Your task to perform on an android device: What's on my calendar today? Image 0: 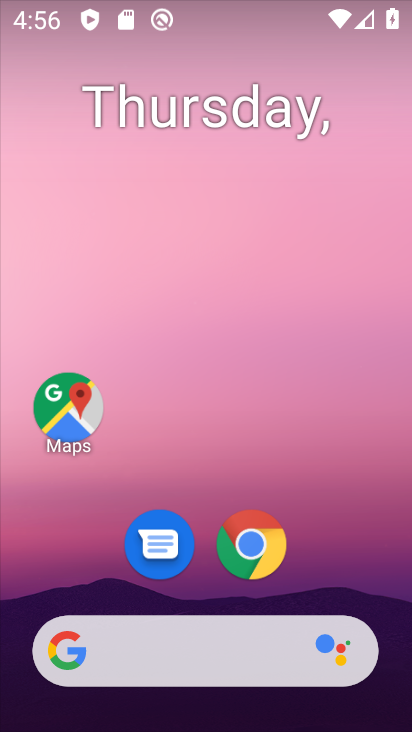
Step 0: drag from (309, 466) to (289, 3)
Your task to perform on an android device: What's on my calendar today? Image 1: 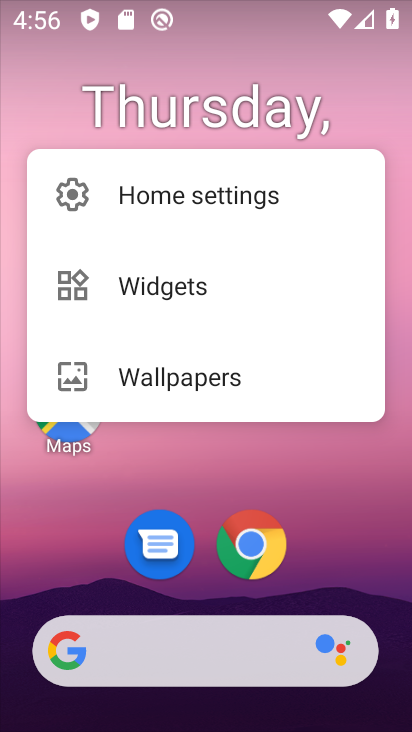
Step 1: click (317, 531)
Your task to perform on an android device: What's on my calendar today? Image 2: 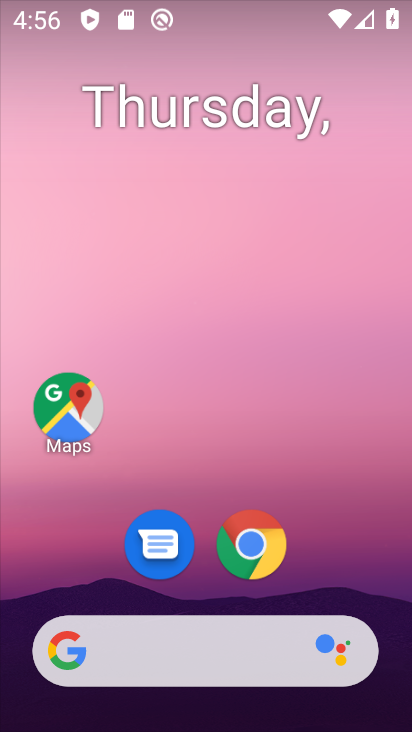
Step 2: drag from (339, 545) to (296, 64)
Your task to perform on an android device: What's on my calendar today? Image 3: 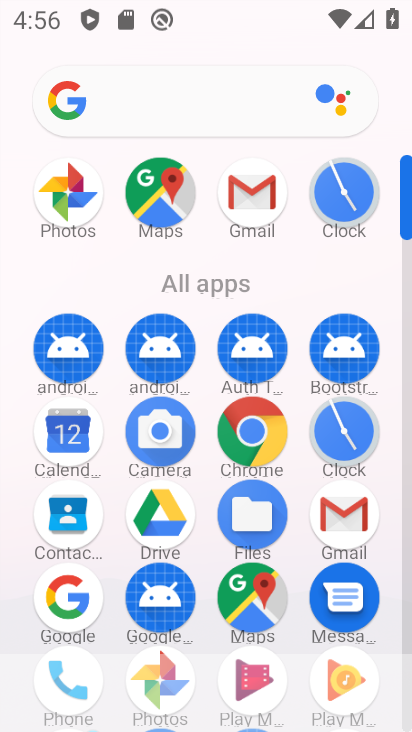
Step 3: click (69, 429)
Your task to perform on an android device: What's on my calendar today? Image 4: 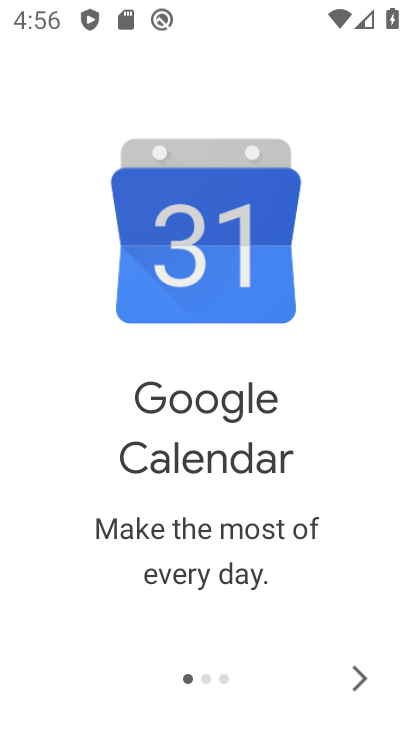
Step 4: click (366, 680)
Your task to perform on an android device: What's on my calendar today? Image 5: 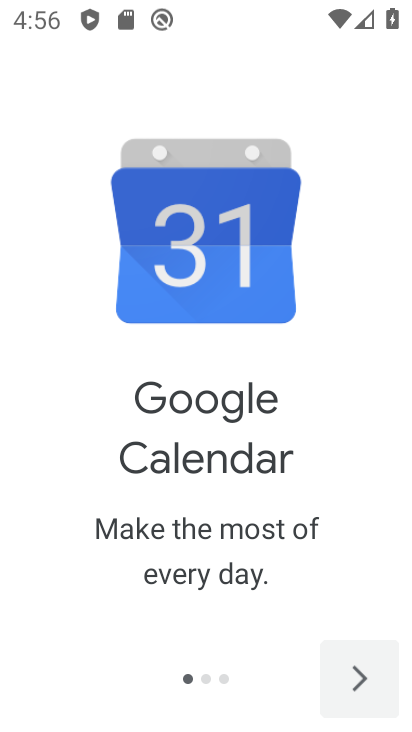
Step 5: click (364, 679)
Your task to perform on an android device: What's on my calendar today? Image 6: 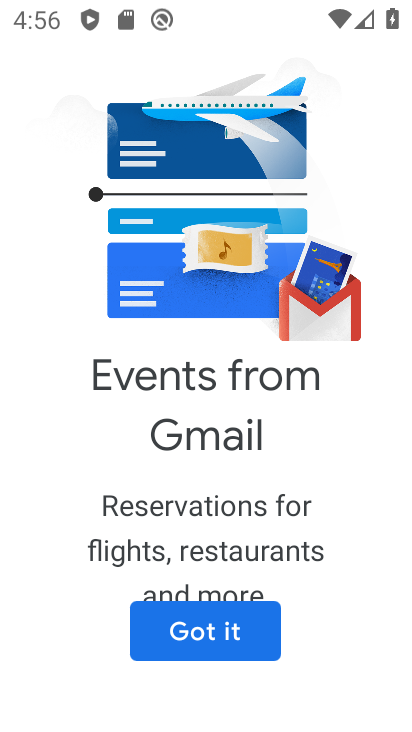
Step 6: click (254, 636)
Your task to perform on an android device: What's on my calendar today? Image 7: 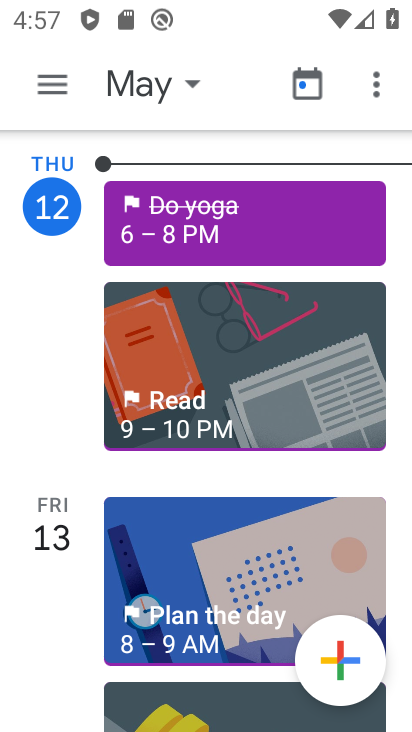
Step 7: task complete